Your task to perform on an android device: open device folders in google photos Image 0: 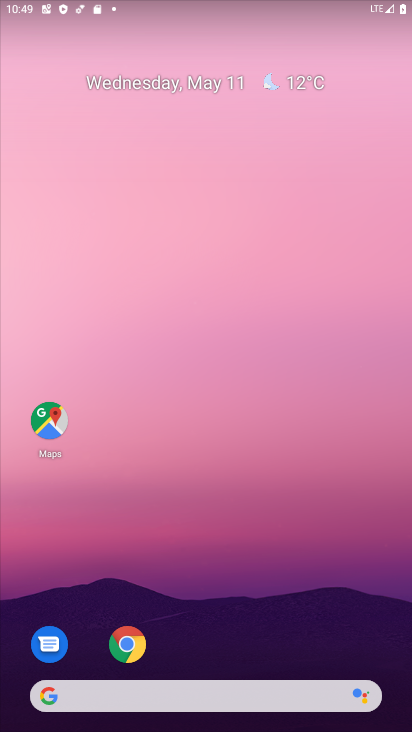
Step 0: drag from (265, 633) to (273, 106)
Your task to perform on an android device: open device folders in google photos Image 1: 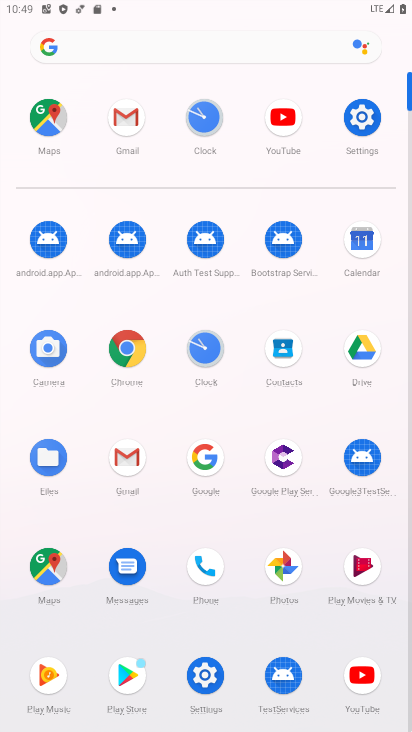
Step 1: click (273, 561)
Your task to perform on an android device: open device folders in google photos Image 2: 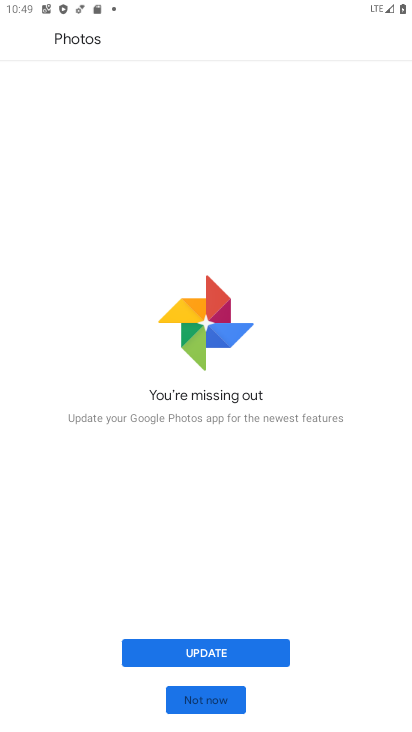
Step 2: click (216, 658)
Your task to perform on an android device: open device folders in google photos Image 3: 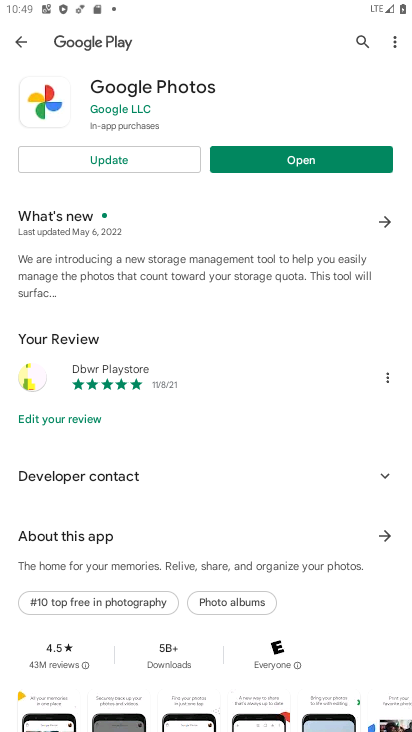
Step 3: click (141, 159)
Your task to perform on an android device: open device folders in google photos Image 4: 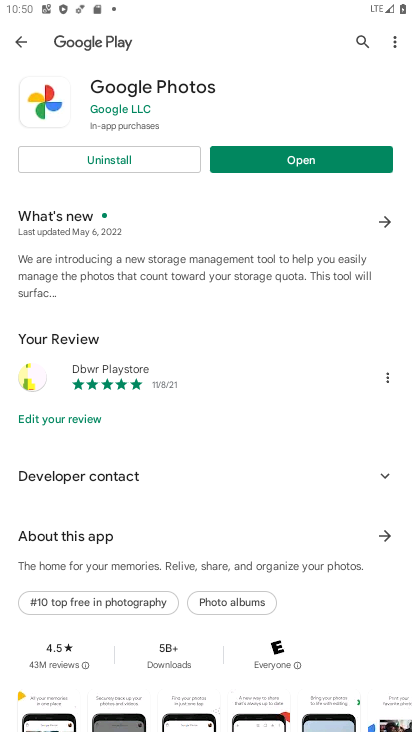
Step 4: click (294, 150)
Your task to perform on an android device: open device folders in google photos Image 5: 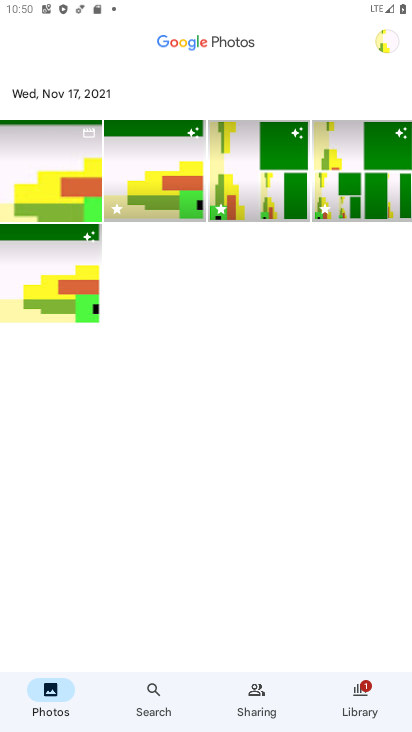
Step 5: click (382, 42)
Your task to perform on an android device: open device folders in google photos Image 6: 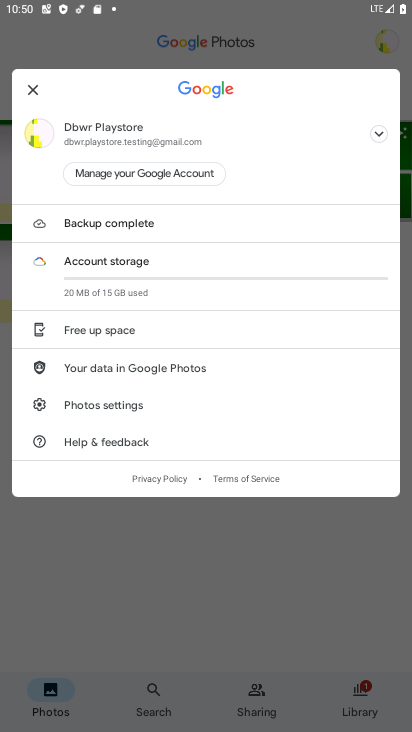
Step 6: click (108, 361)
Your task to perform on an android device: open device folders in google photos Image 7: 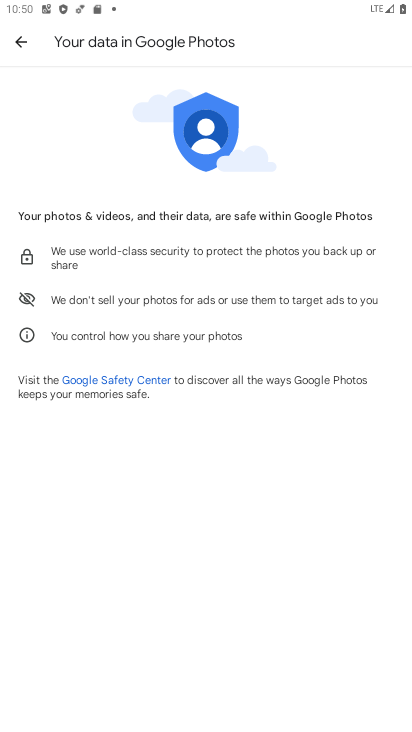
Step 7: task complete